Your task to perform on an android device: add a contact in the contacts app Image 0: 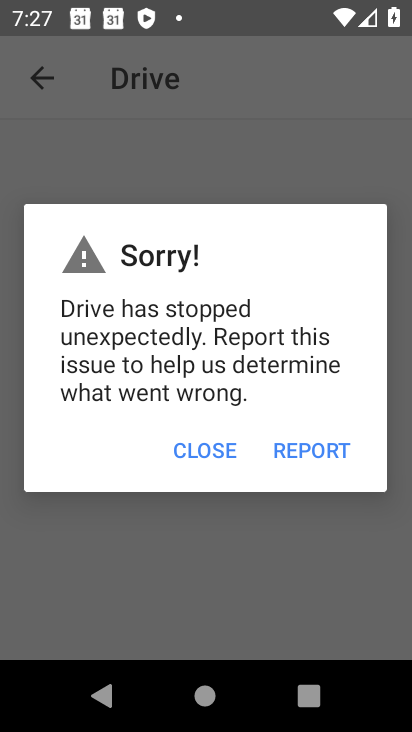
Step 0: press back button
Your task to perform on an android device: add a contact in the contacts app Image 1: 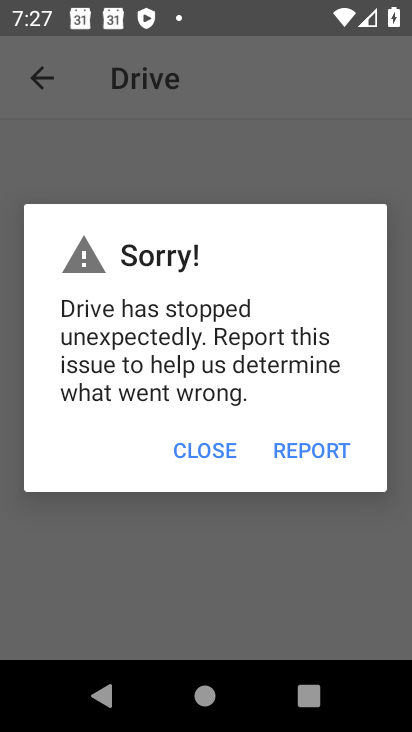
Step 1: press back button
Your task to perform on an android device: add a contact in the contacts app Image 2: 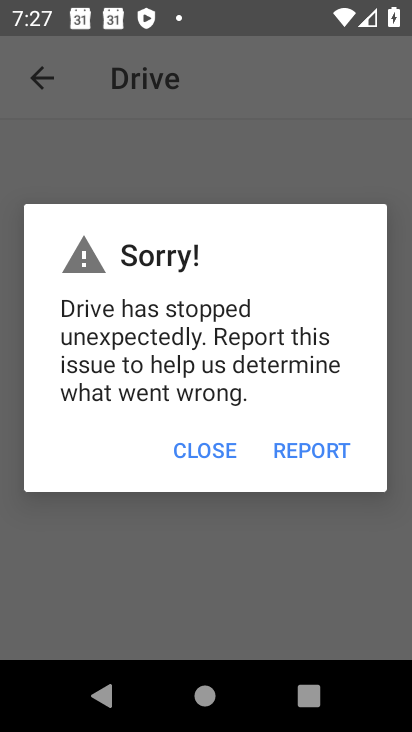
Step 2: press back button
Your task to perform on an android device: add a contact in the contacts app Image 3: 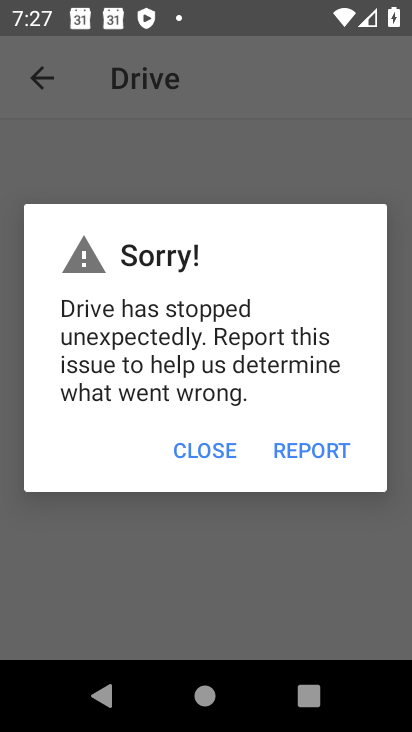
Step 3: press home button
Your task to perform on an android device: add a contact in the contacts app Image 4: 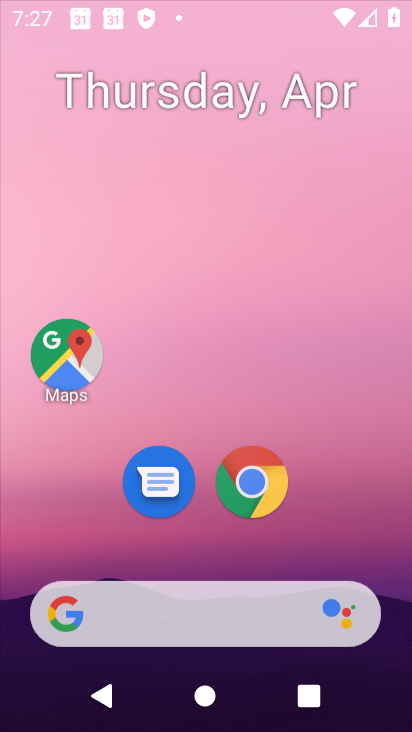
Step 4: press home button
Your task to perform on an android device: add a contact in the contacts app Image 5: 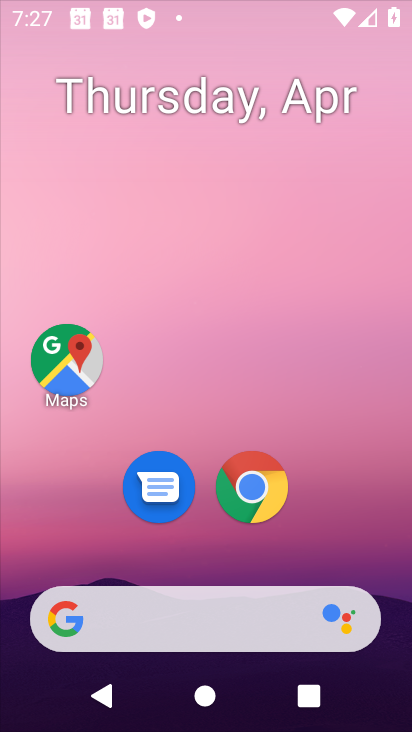
Step 5: press home button
Your task to perform on an android device: add a contact in the contacts app Image 6: 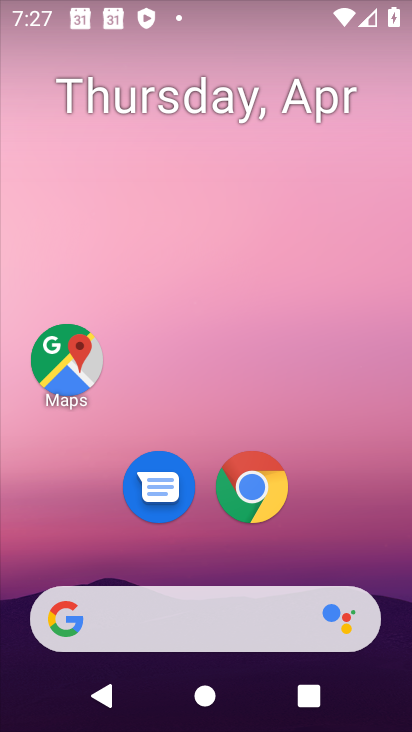
Step 6: drag from (350, 544) to (240, 182)
Your task to perform on an android device: add a contact in the contacts app Image 7: 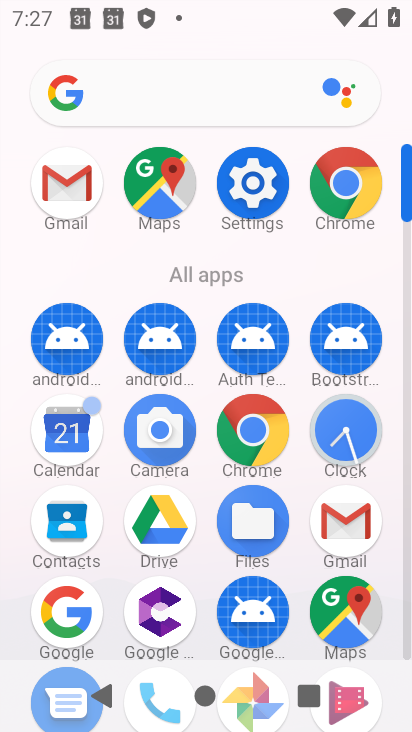
Step 7: click (67, 533)
Your task to perform on an android device: add a contact in the contacts app Image 8: 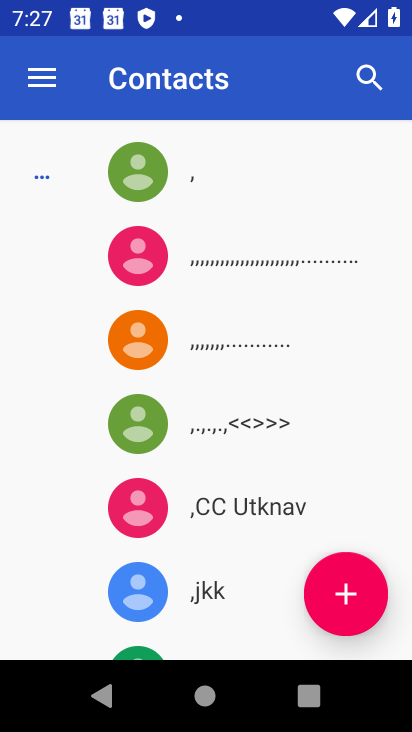
Step 8: click (353, 585)
Your task to perform on an android device: add a contact in the contacts app Image 9: 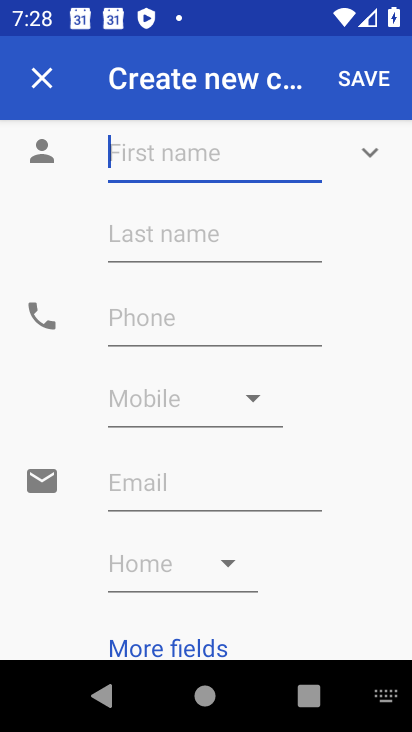
Step 9: type "willsome"
Your task to perform on an android device: add a contact in the contacts app Image 10: 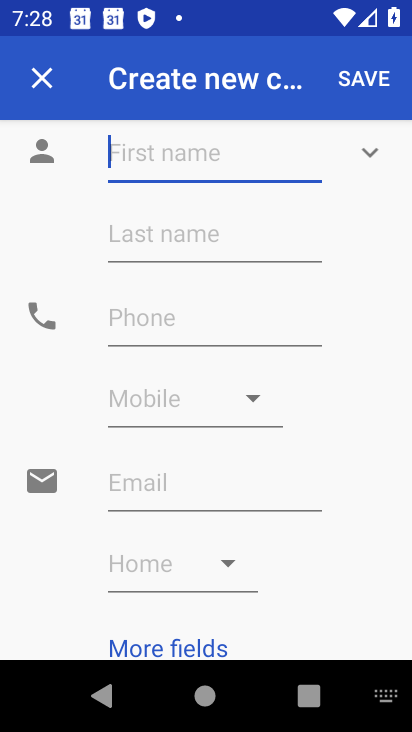
Step 10: click (376, 75)
Your task to perform on an android device: add a contact in the contacts app Image 11: 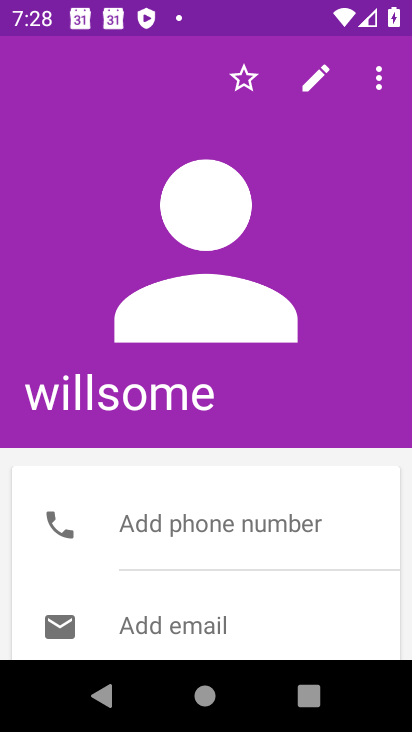
Step 11: task complete